Your task to perform on an android device: turn off priority inbox in the gmail app Image 0: 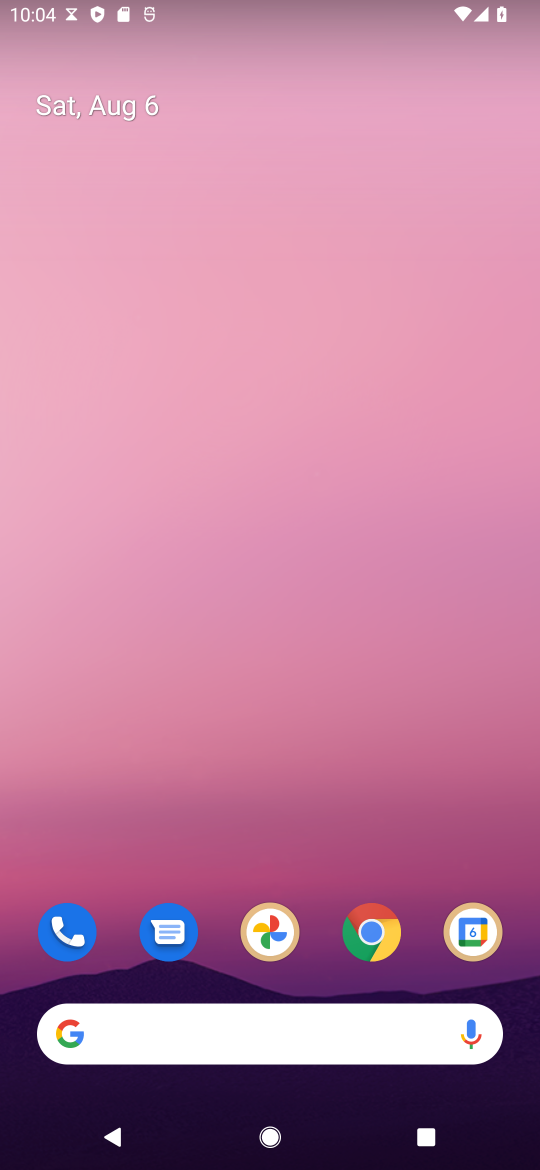
Step 0: drag from (163, 1031) to (502, 206)
Your task to perform on an android device: turn off priority inbox in the gmail app Image 1: 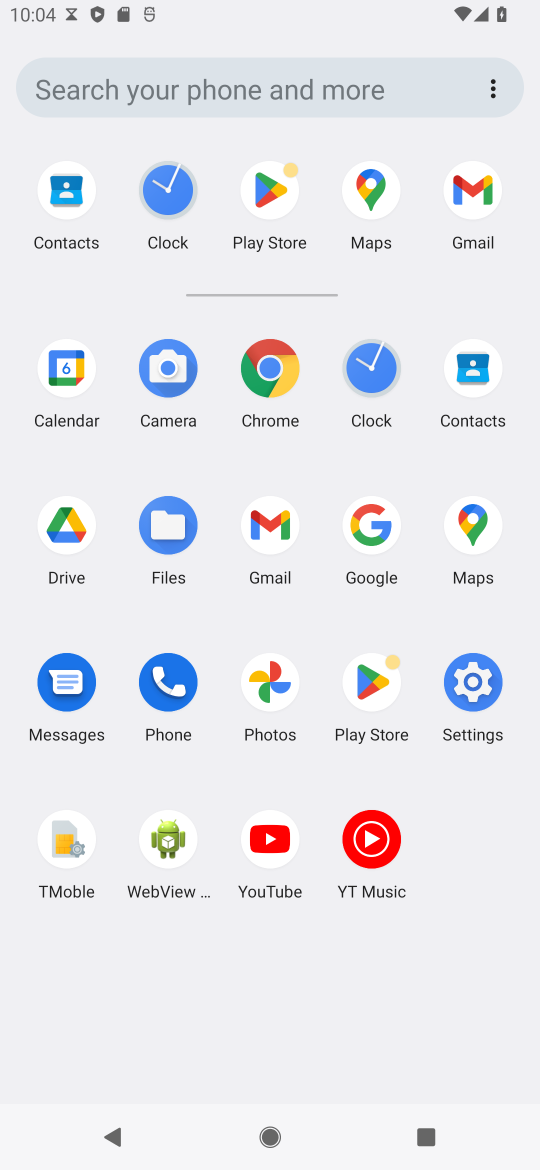
Step 1: click (267, 517)
Your task to perform on an android device: turn off priority inbox in the gmail app Image 2: 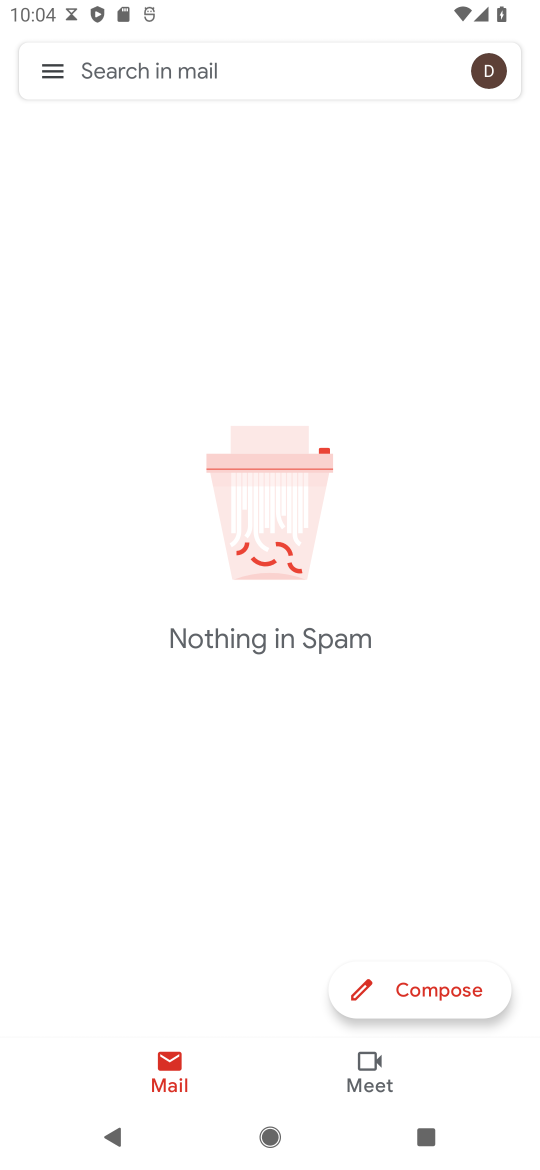
Step 2: click (52, 72)
Your task to perform on an android device: turn off priority inbox in the gmail app Image 3: 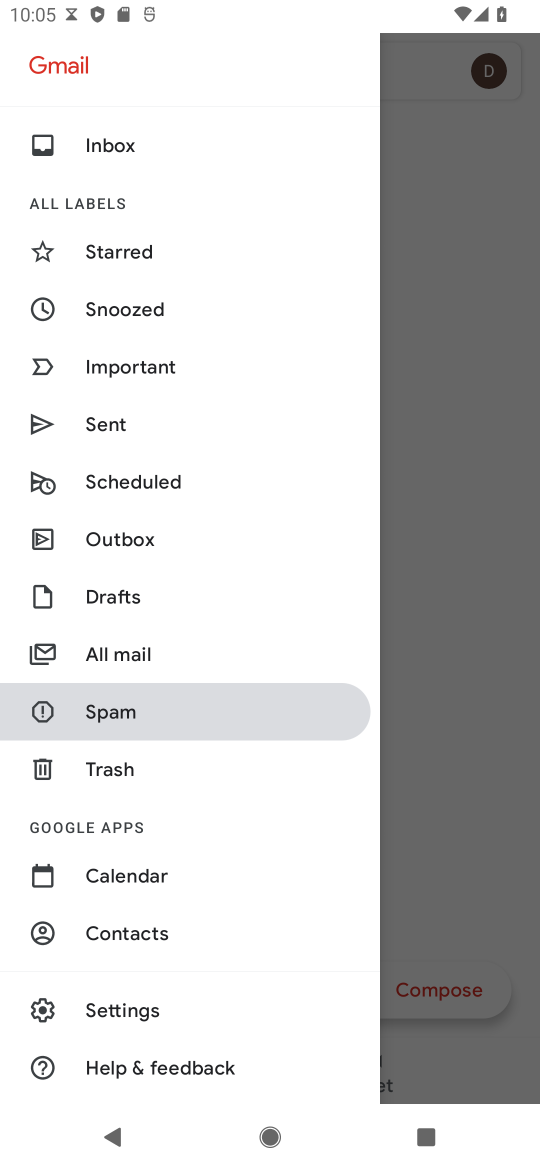
Step 3: drag from (105, 860) to (232, 638)
Your task to perform on an android device: turn off priority inbox in the gmail app Image 4: 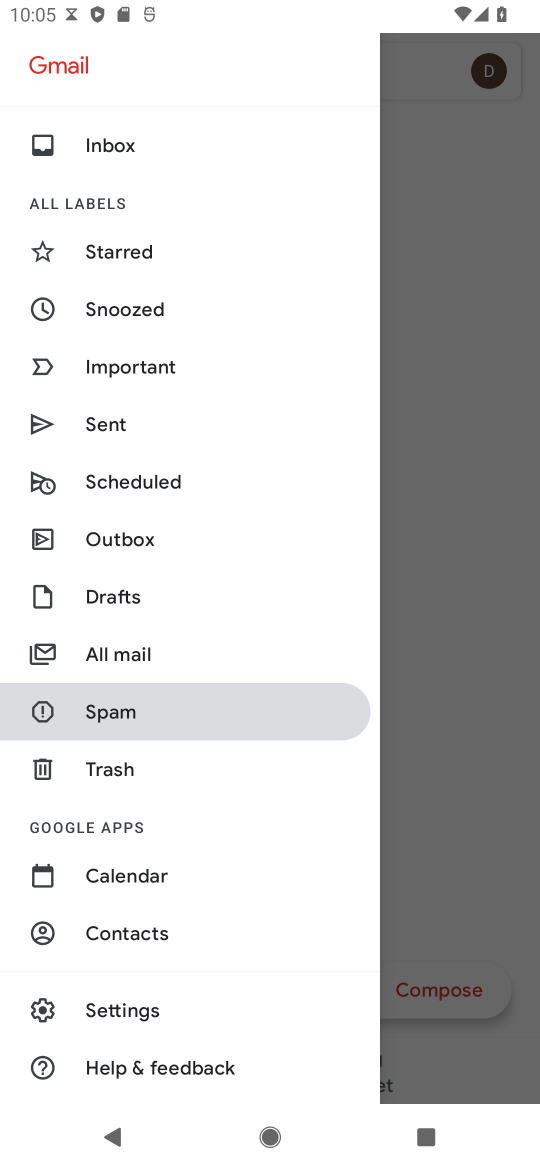
Step 4: click (120, 1009)
Your task to perform on an android device: turn off priority inbox in the gmail app Image 5: 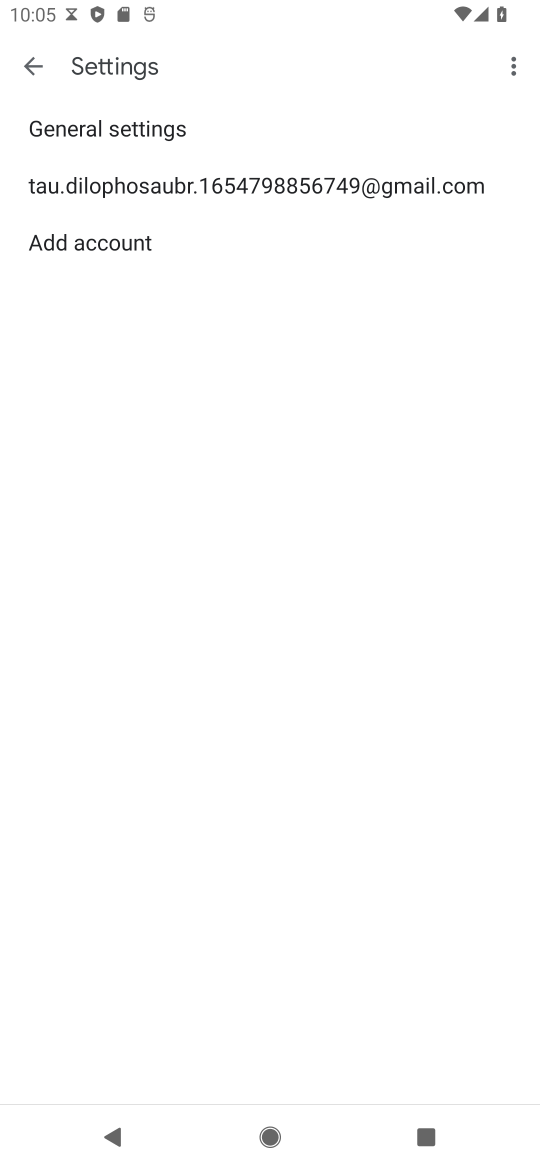
Step 5: click (134, 184)
Your task to perform on an android device: turn off priority inbox in the gmail app Image 6: 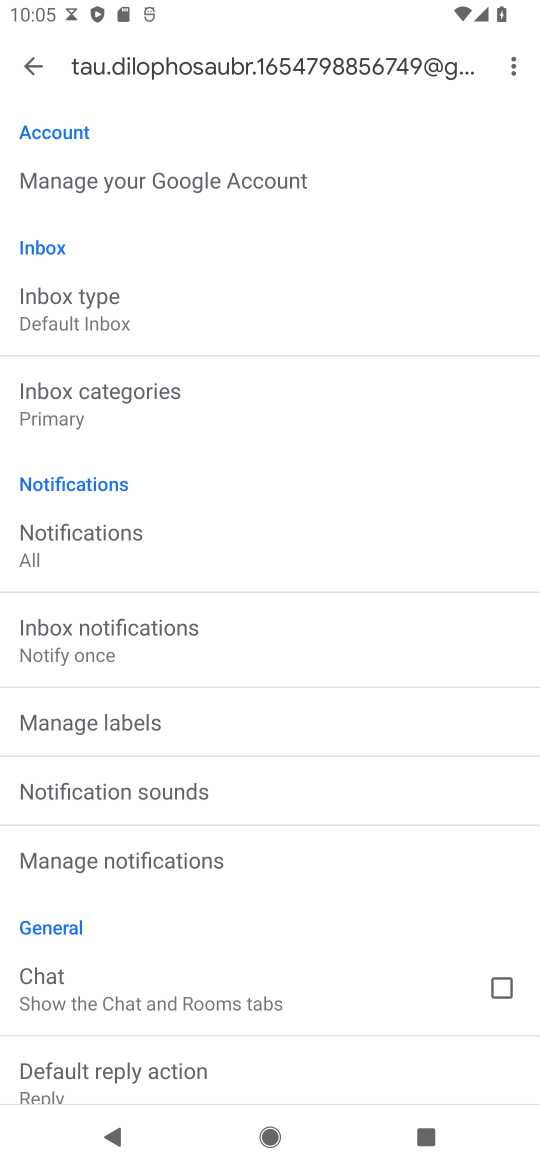
Step 6: click (100, 334)
Your task to perform on an android device: turn off priority inbox in the gmail app Image 7: 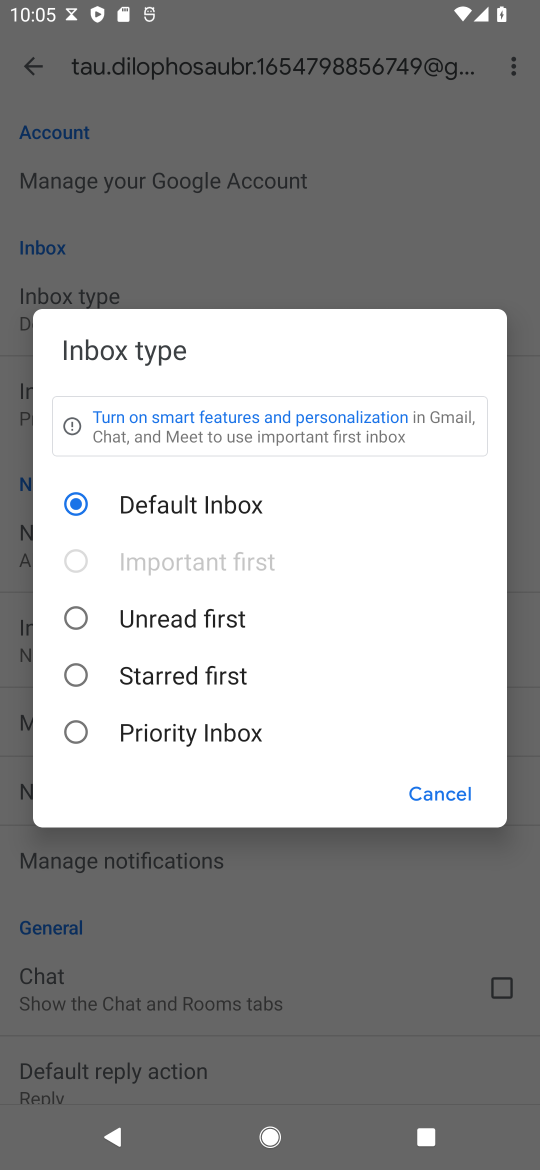
Step 7: click (75, 500)
Your task to perform on an android device: turn off priority inbox in the gmail app Image 8: 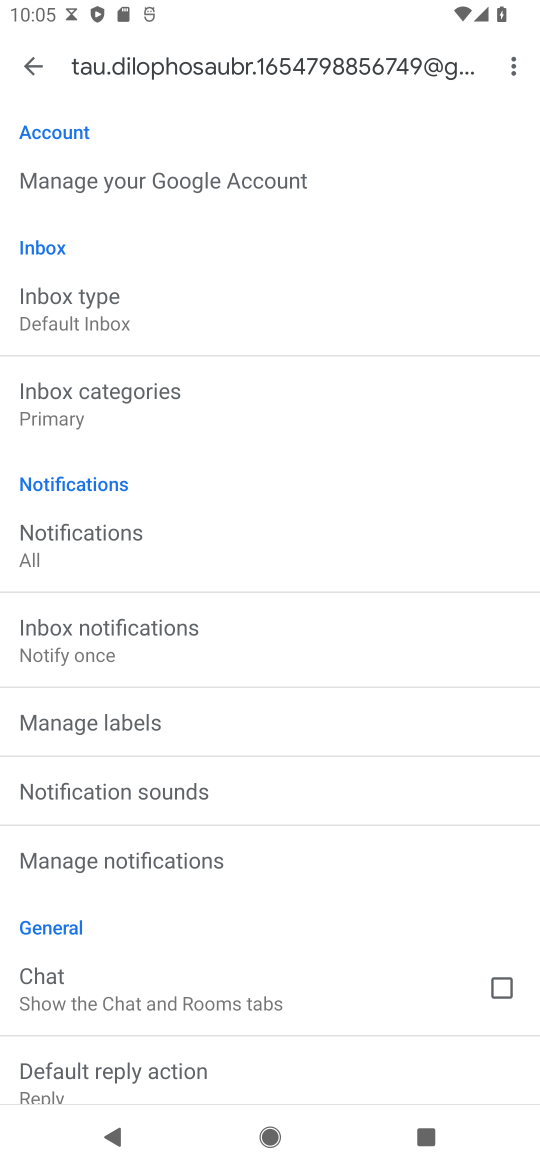
Step 8: task complete